Your task to perform on an android device: open app "Google Chat" (install if not already installed) Image 0: 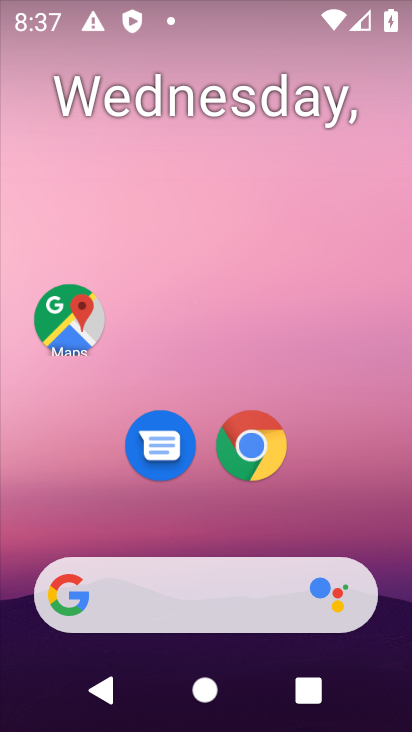
Step 0: drag from (233, 649) to (253, 55)
Your task to perform on an android device: open app "Google Chat" (install if not already installed) Image 1: 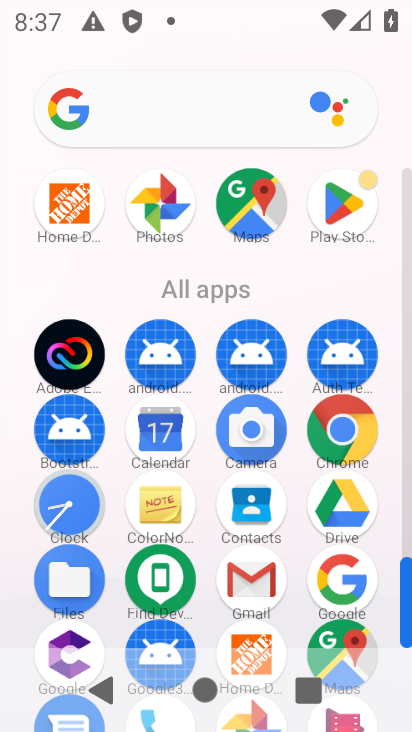
Step 1: click (343, 203)
Your task to perform on an android device: open app "Google Chat" (install if not already installed) Image 2: 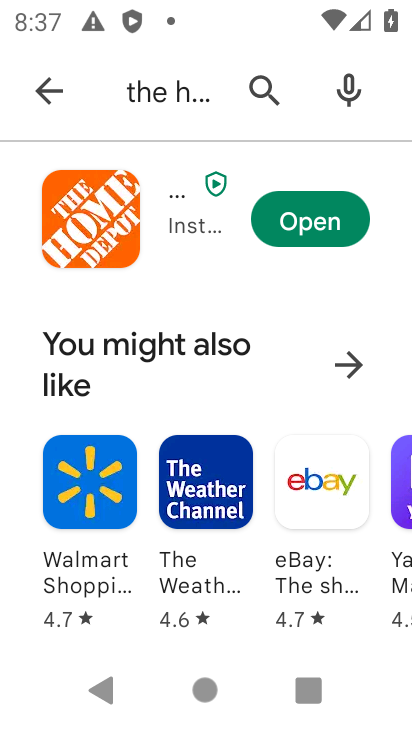
Step 2: click (264, 95)
Your task to perform on an android device: open app "Google Chat" (install if not already installed) Image 3: 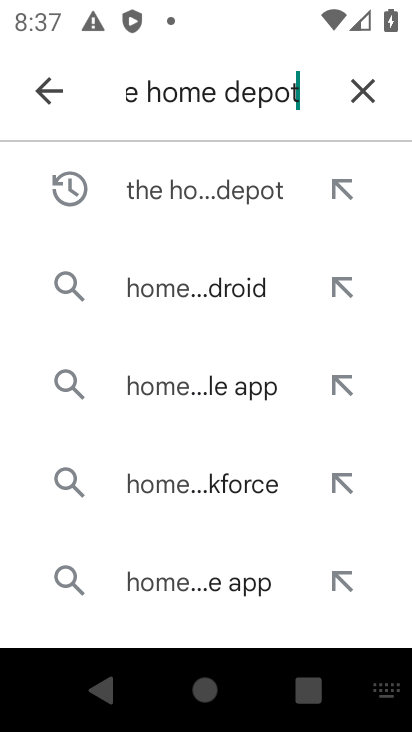
Step 3: click (361, 95)
Your task to perform on an android device: open app "Google Chat" (install if not already installed) Image 4: 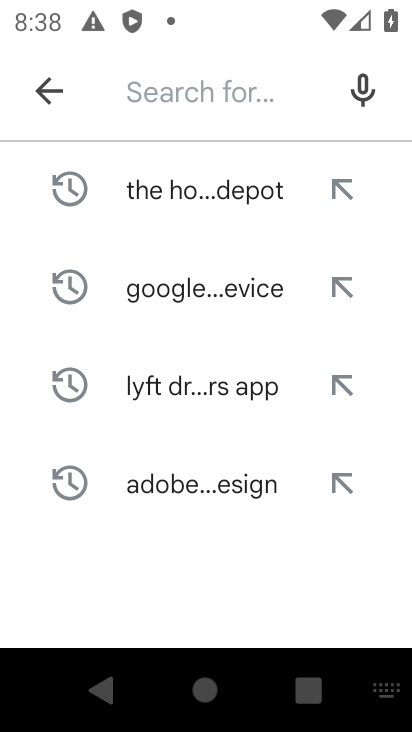
Step 4: type "Google Chat"
Your task to perform on an android device: open app "Google Chat" (install if not already installed) Image 5: 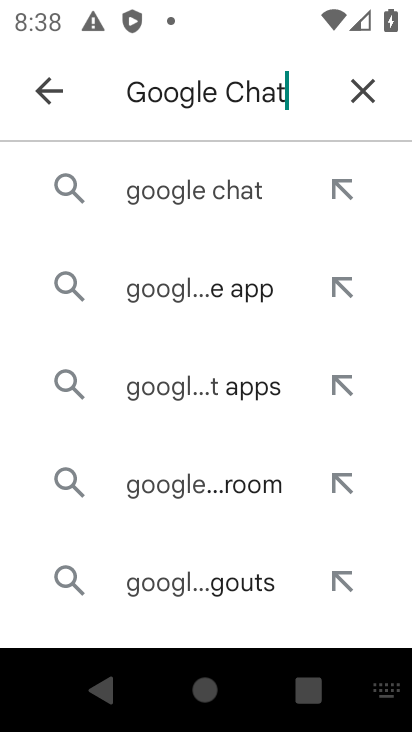
Step 5: click (255, 192)
Your task to perform on an android device: open app "Google Chat" (install if not already installed) Image 6: 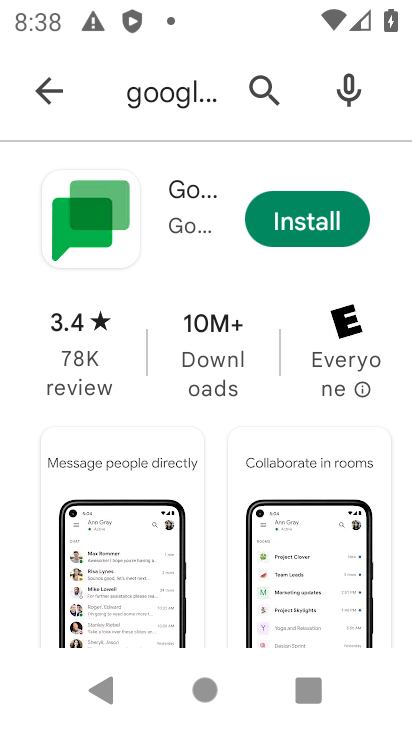
Step 6: click (305, 227)
Your task to perform on an android device: open app "Google Chat" (install if not already installed) Image 7: 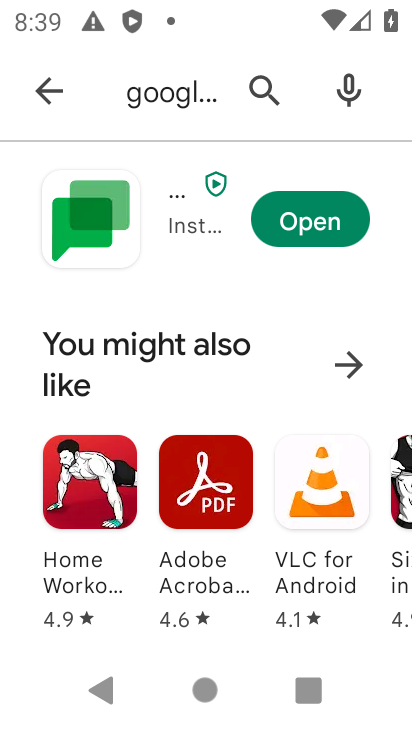
Step 7: click (305, 227)
Your task to perform on an android device: open app "Google Chat" (install if not already installed) Image 8: 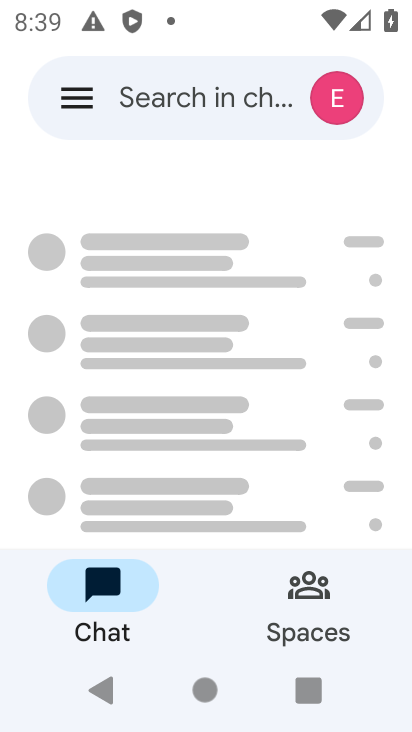
Step 8: task complete